Your task to perform on an android device: Do I have any events this weekend? Image 0: 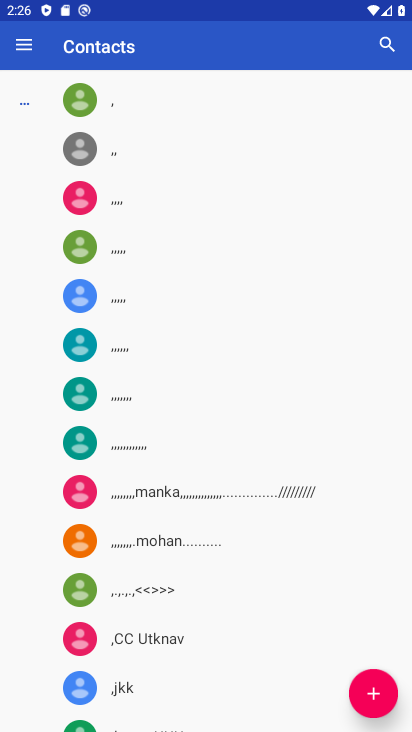
Step 0: press home button
Your task to perform on an android device: Do I have any events this weekend? Image 1: 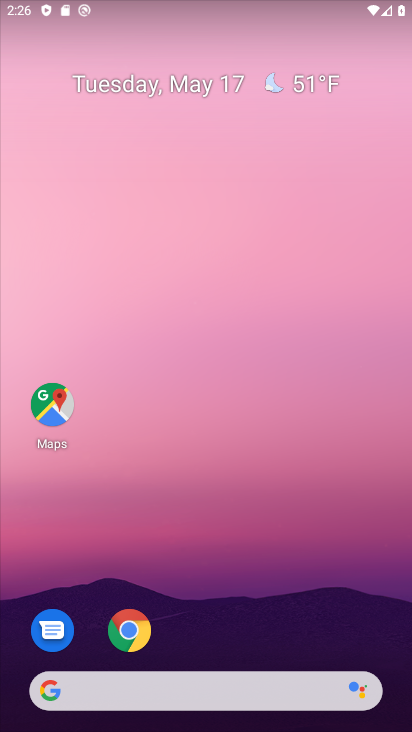
Step 1: click (135, 643)
Your task to perform on an android device: Do I have any events this weekend? Image 2: 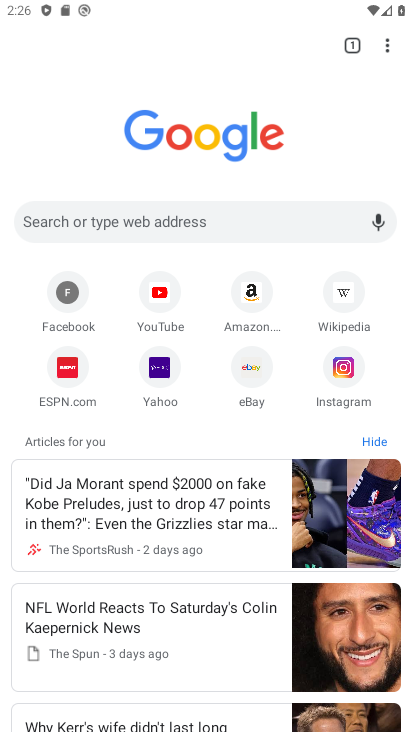
Step 2: press home button
Your task to perform on an android device: Do I have any events this weekend? Image 3: 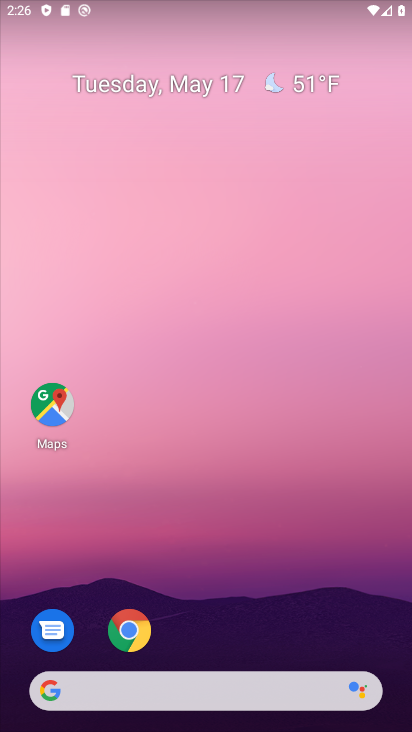
Step 3: drag from (212, 604) to (168, 143)
Your task to perform on an android device: Do I have any events this weekend? Image 4: 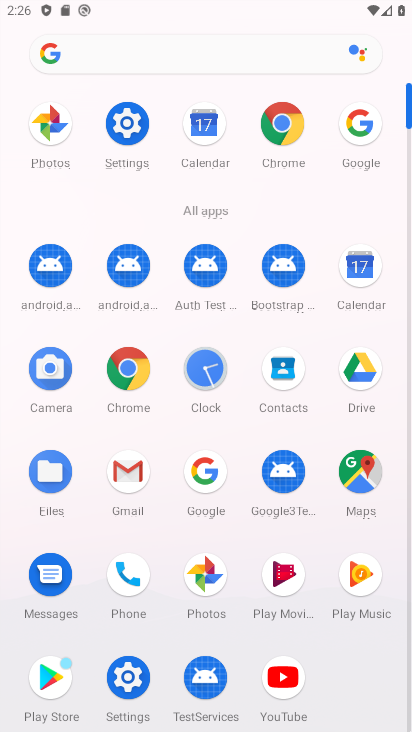
Step 4: click (353, 278)
Your task to perform on an android device: Do I have any events this weekend? Image 5: 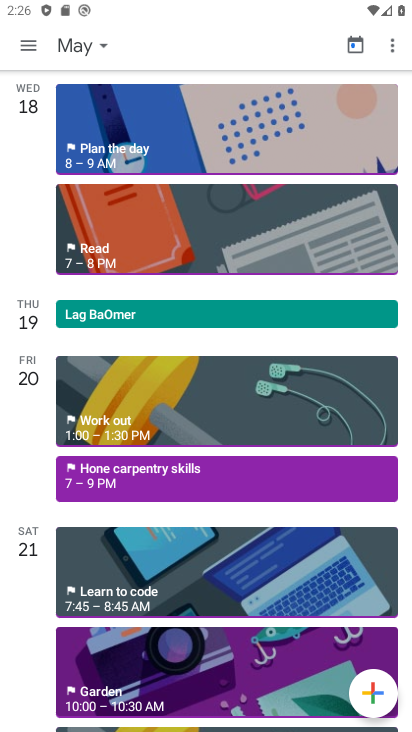
Step 5: click (85, 54)
Your task to perform on an android device: Do I have any events this weekend? Image 6: 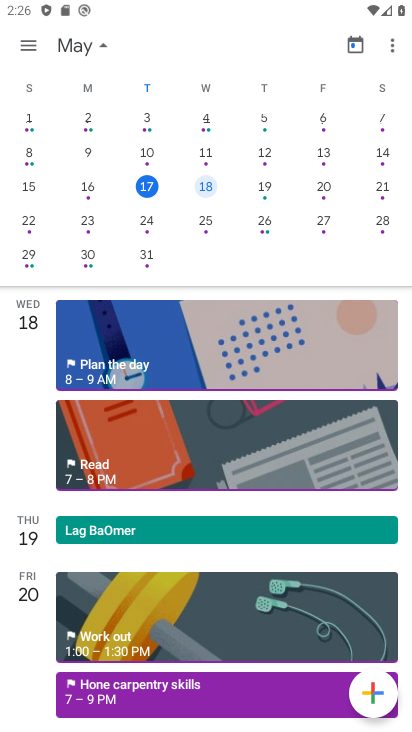
Step 6: click (39, 198)
Your task to perform on an android device: Do I have any events this weekend? Image 7: 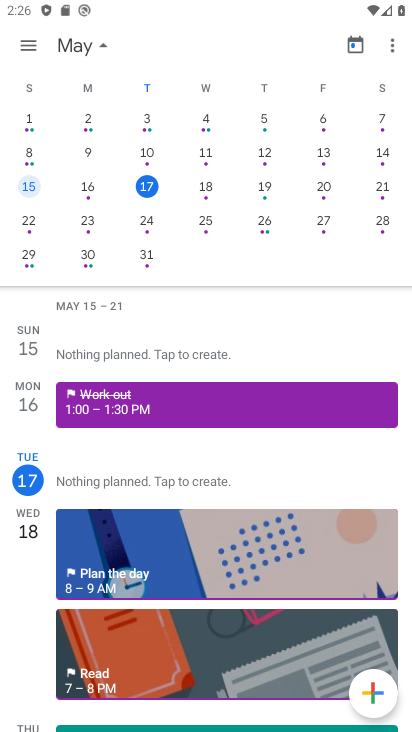
Step 7: click (29, 189)
Your task to perform on an android device: Do I have any events this weekend? Image 8: 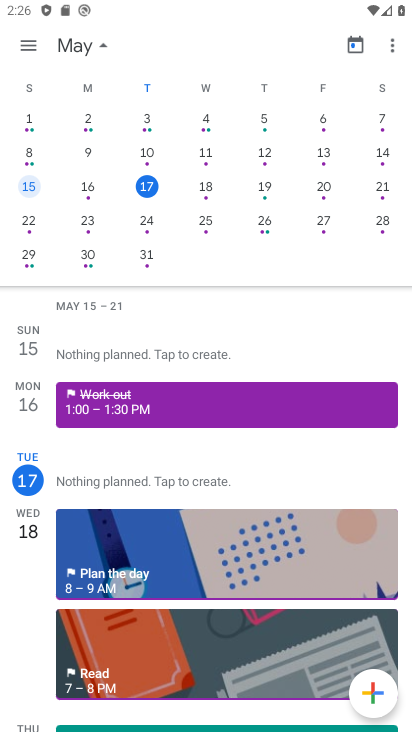
Step 8: click (30, 193)
Your task to perform on an android device: Do I have any events this weekend? Image 9: 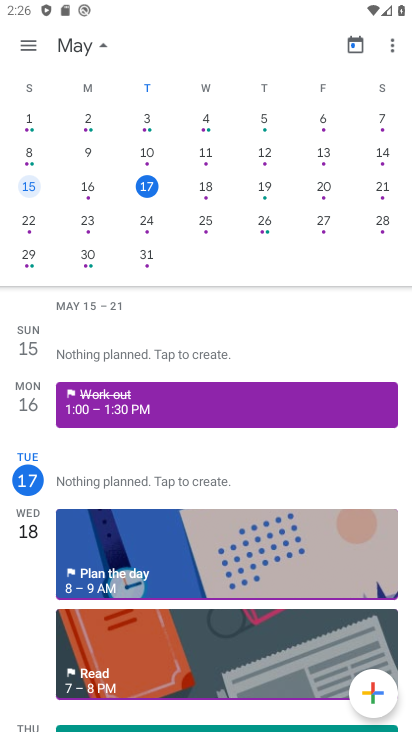
Step 9: click (79, 46)
Your task to perform on an android device: Do I have any events this weekend? Image 10: 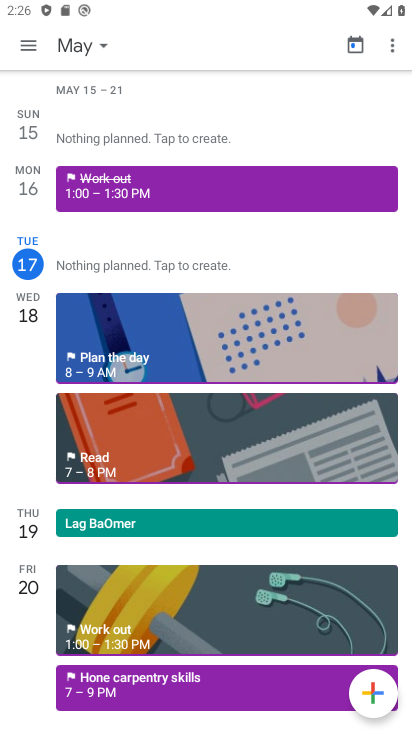
Step 10: click (20, 45)
Your task to perform on an android device: Do I have any events this weekend? Image 11: 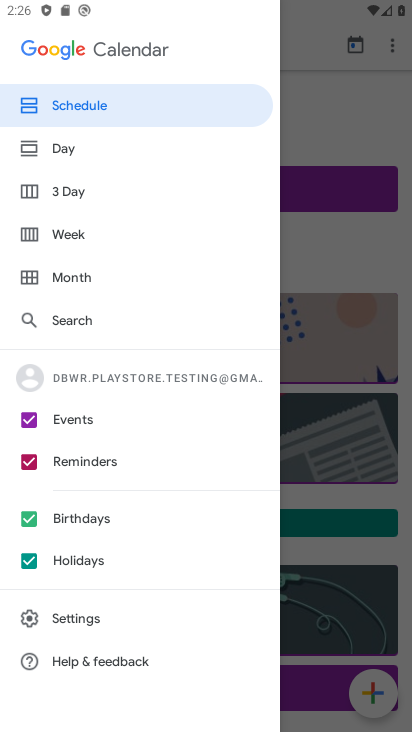
Step 11: click (68, 240)
Your task to perform on an android device: Do I have any events this weekend? Image 12: 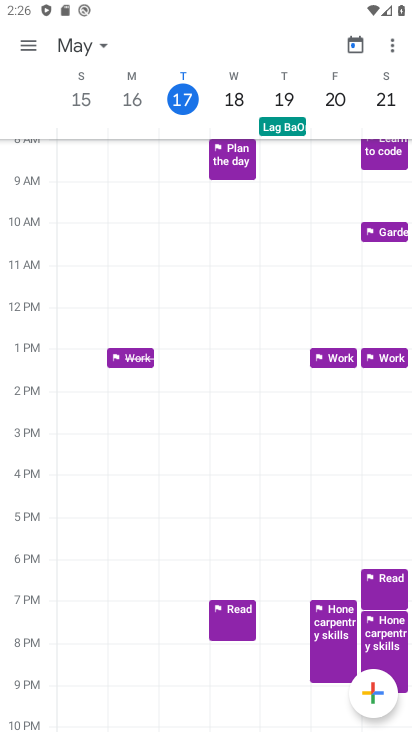
Step 12: task complete